Your task to perform on an android device: delete a single message in the gmail app Image 0: 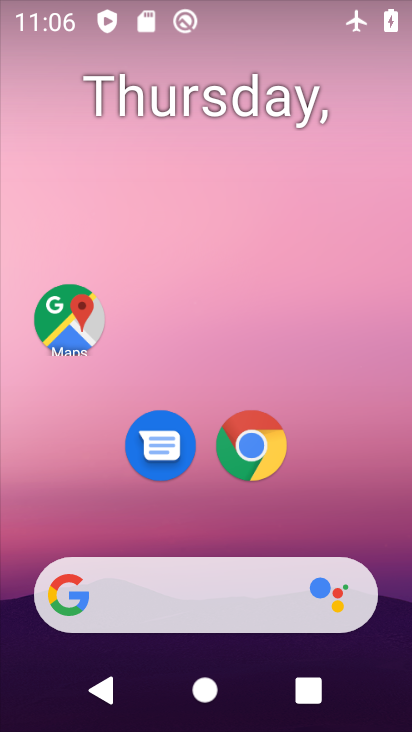
Step 0: click (202, 10)
Your task to perform on an android device: delete a single message in the gmail app Image 1: 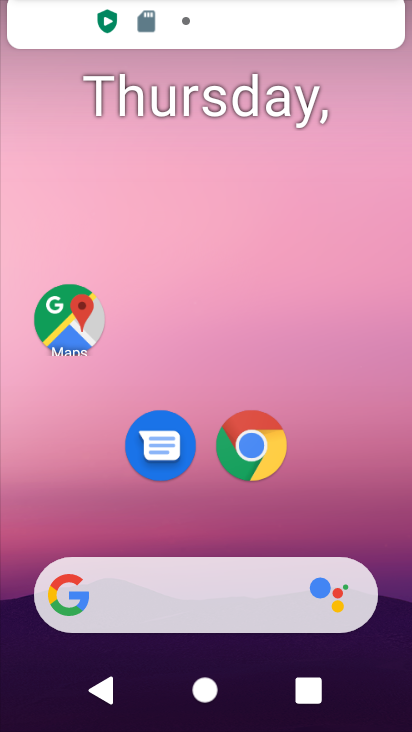
Step 1: drag from (191, 528) to (199, 150)
Your task to perform on an android device: delete a single message in the gmail app Image 2: 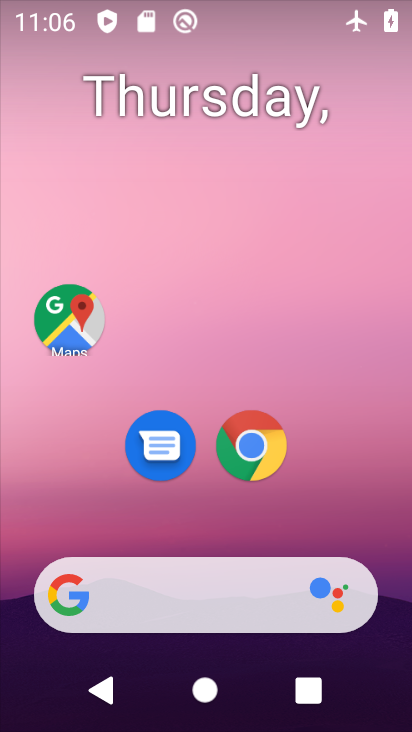
Step 2: drag from (200, 502) to (204, 146)
Your task to perform on an android device: delete a single message in the gmail app Image 3: 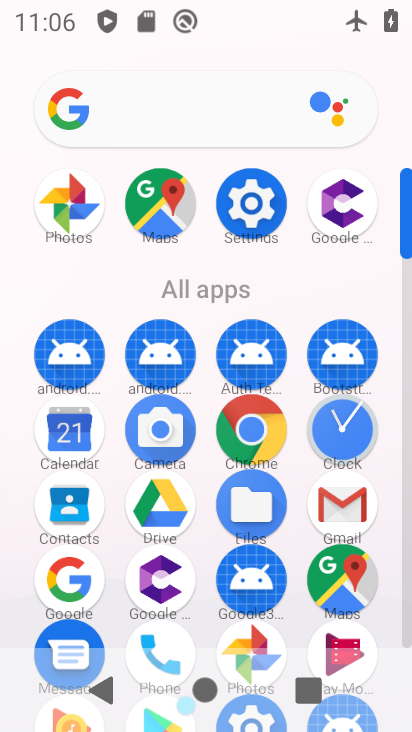
Step 3: click (333, 512)
Your task to perform on an android device: delete a single message in the gmail app Image 4: 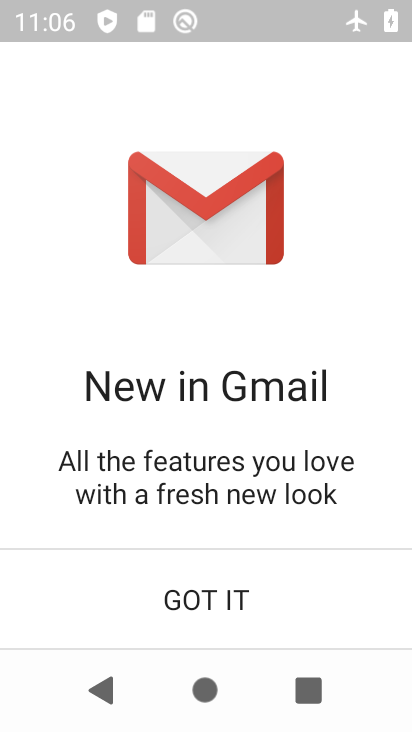
Step 4: click (171, 601)
Your task to perform on an android device: delete a single message in the gmail app Image 5: 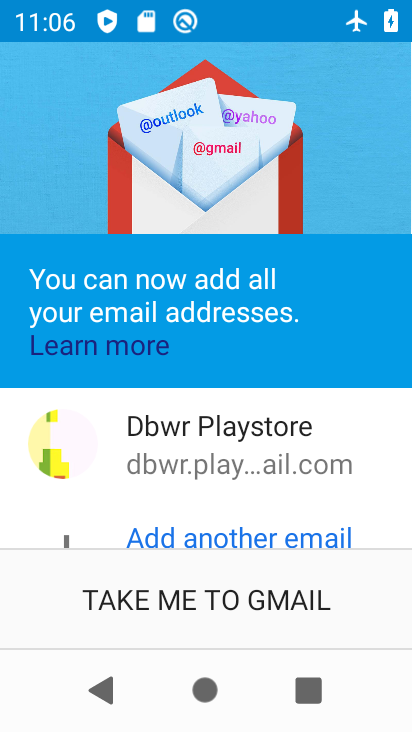
Step 5: click (211, 590)
Your task to perform on an android device: delete a single message in the gmail app Image 6: 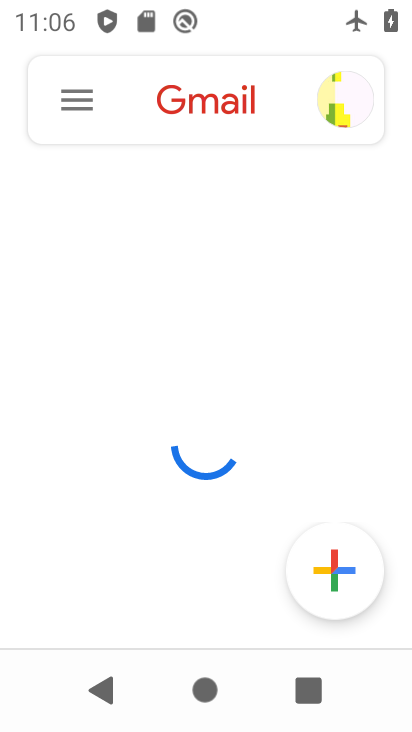
Step 6: click (78, 95)
Your task to perform on an android device: delete a single message in the gmail app Image 7: 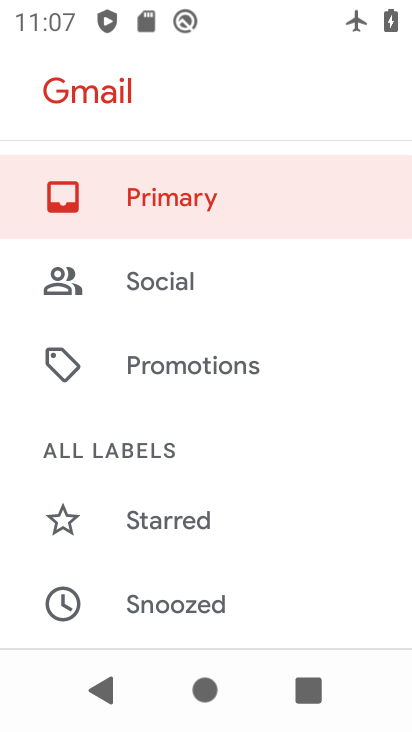
Step 7: drag from (238, 589) to (234, 192)
Your task to perform on an android device: delete a single message in the gmail app Image 8: 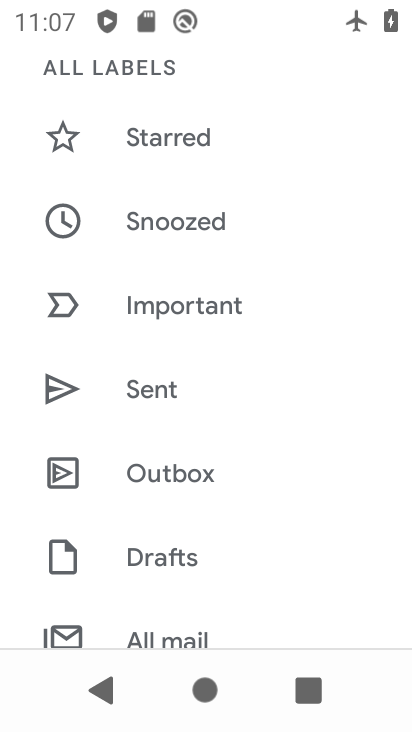
Step 8: drag from (233, 362) to (254, 290)
Your task to perform on an android device: delete a single message in the gmail app Image 9: 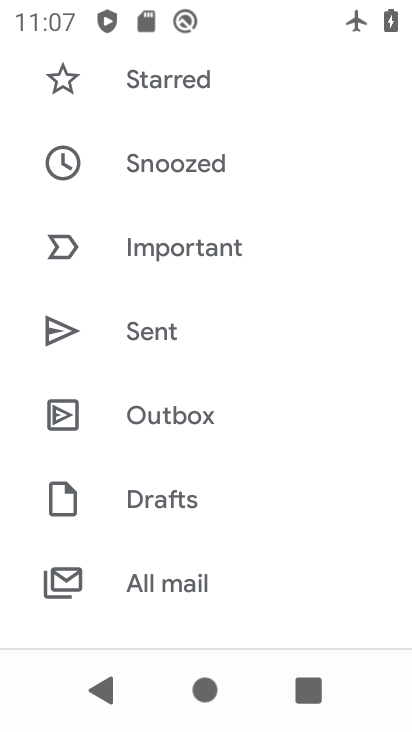
Step 9: click (176, 579)
Your task to perform on an android device: delete a single message in the gmail app Image 10: 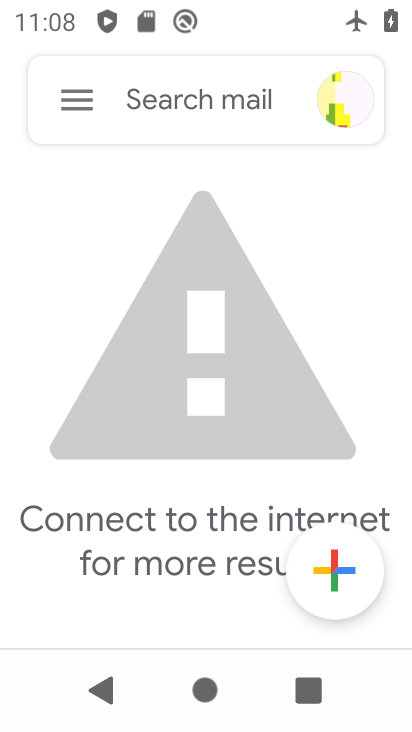
Step 10: task complete